Your task to perform on an android device: What is the news today? Image 0: 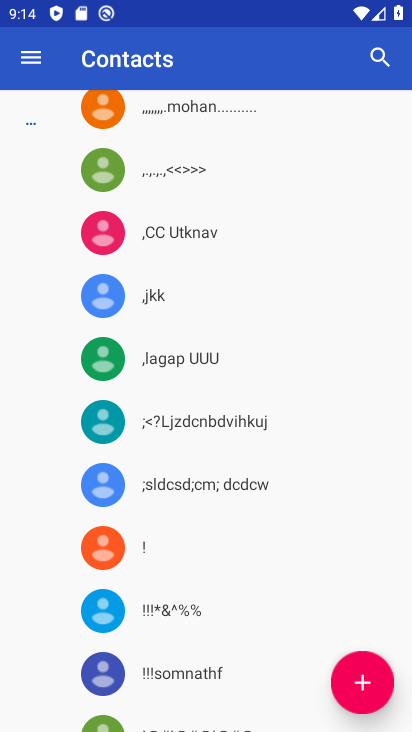
Step 0: press home button
Your task to perform on an android device: What is the news today? Image 1: 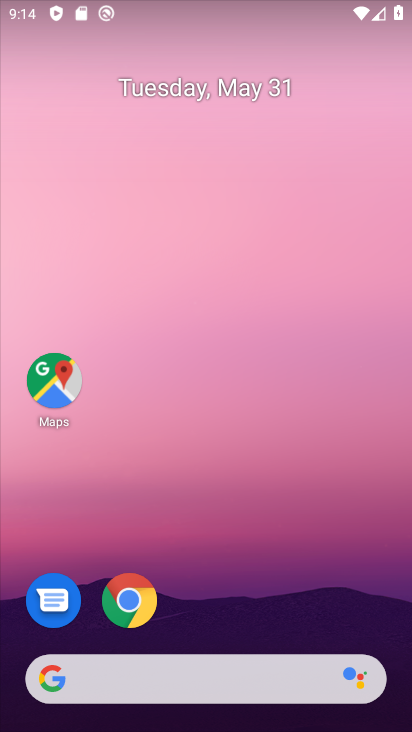
Step 1: drag from (191, 634) to (176, 172)
Your task to perform on an android device: What is the news today? Image 2: 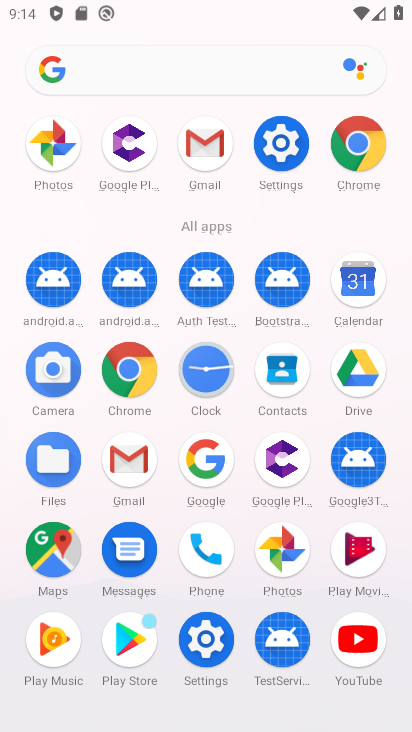
Step 2: click (208, 492)
Your task to perform on an android device: What is the news today? Image 3: 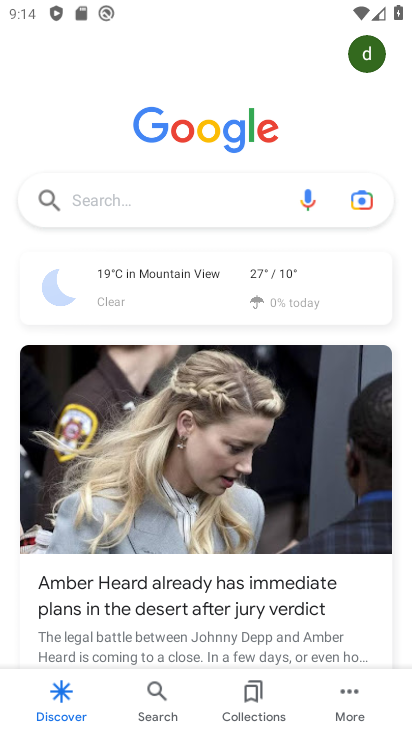
Step 3: click (159, 190)
Your task to perform on an android device: What is the news today? Image 4: 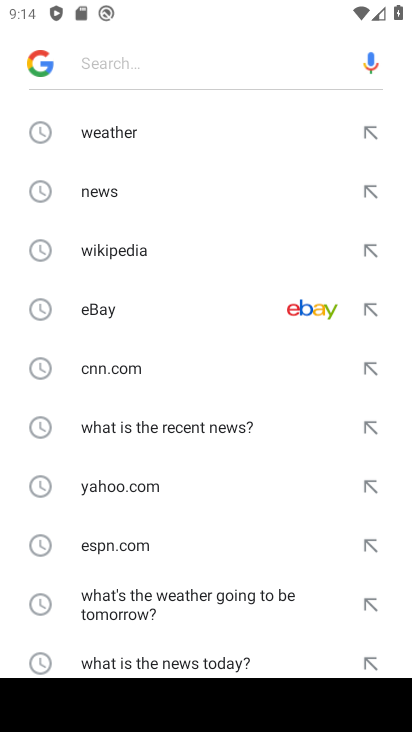
Step 4: click (231, 670)
Your task to perform on an android device: What is the news today? Image 5: 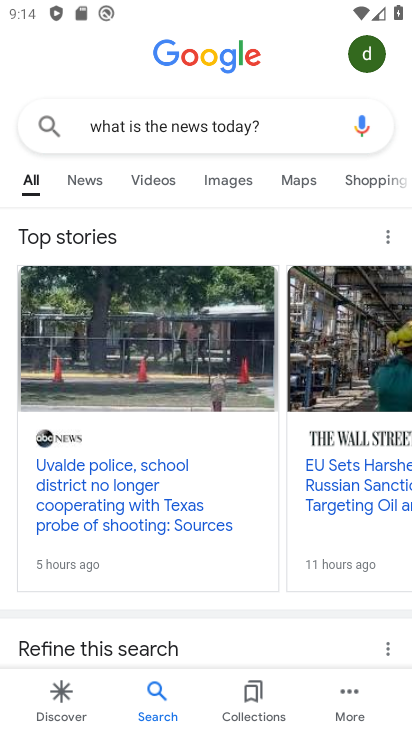
Step 5: task complete